Your task to perform on an android device: turn off picture-in-picture Image 0: 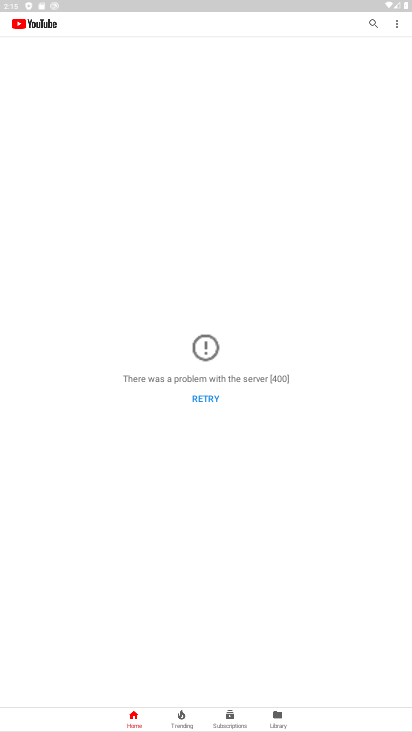
Step 0: press home button
Your task to perform on an android device: turn off picture-in-picture Image 1: 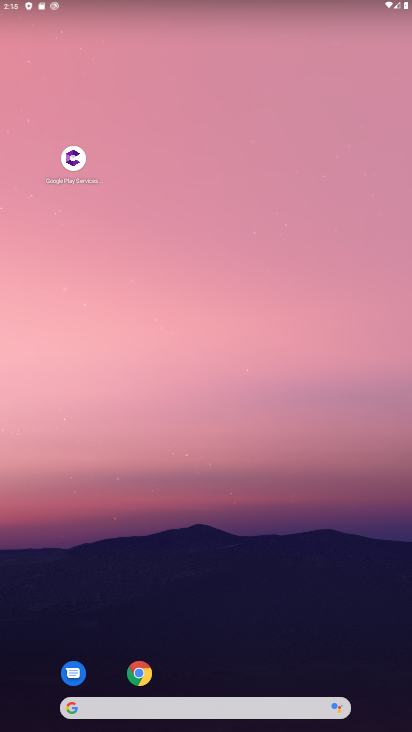
Step 1: drag from (280, 659) to (342, 71)
Your task to perform on an android device: turn off picture-in-picture Image 2: 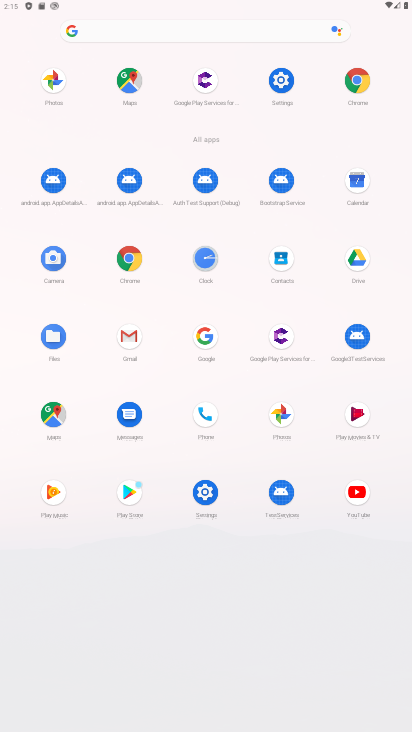
Step 2: click (352, 85)
Your task to perform on an android device: turn off picture-in-picture Image 3: 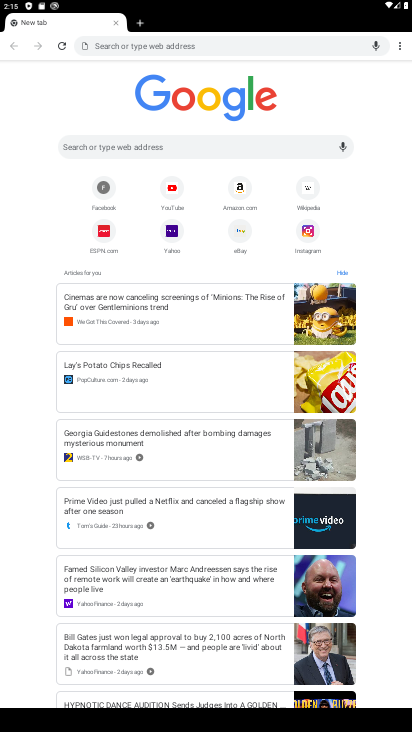
Step 3: drag from (402, 42) to (305, 207)
Your task to perform on an android device: turn off picture-in-picture Image 4: 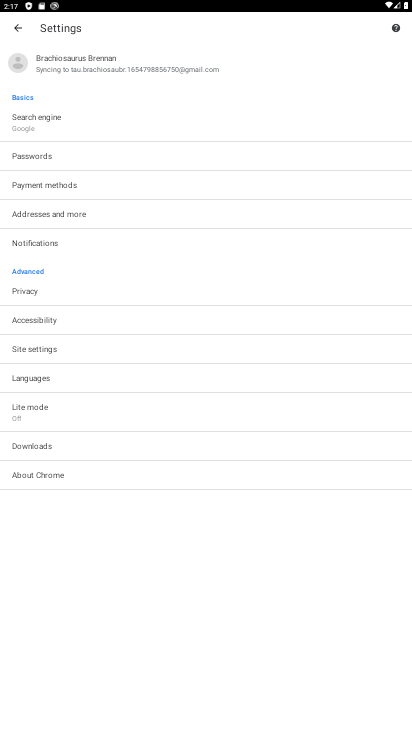
Step 4: click (58, 350)
Your task to perform on an android device: turn off picture-in-picture Image 5: 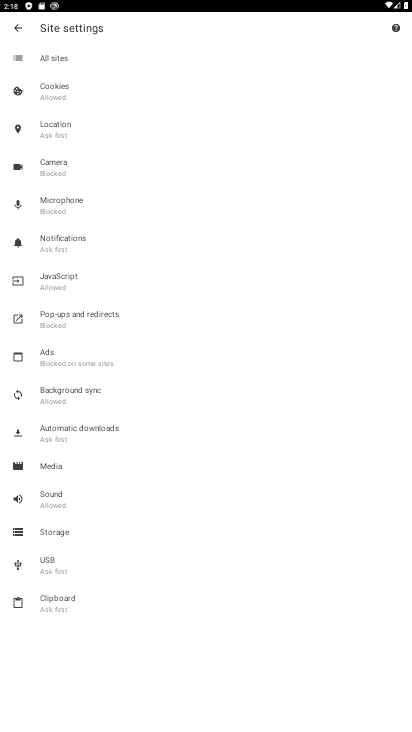
Step 5: click (75, 314)
Your task to perform on an android device: turn off picture-in-picture Image 6: 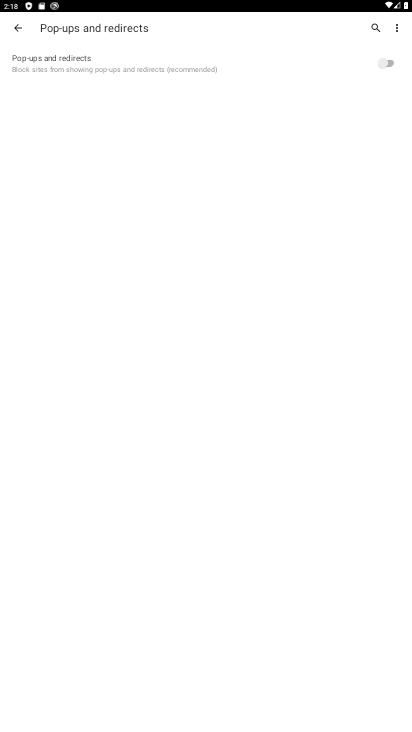
Step 6: task complete